Your task to perform on an android device: Go to Android settings Image 0: 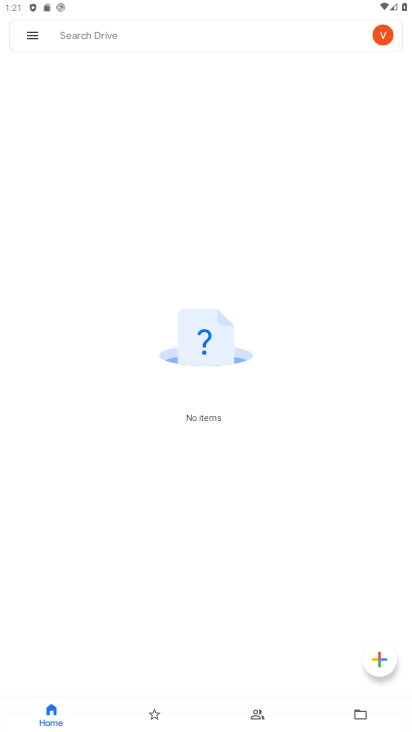
Step 0: press home button
Your task to perform on an android device: Go to Android settings Image 1: 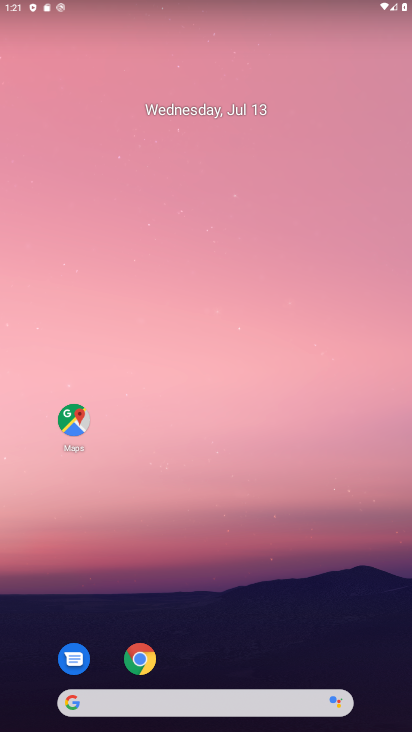
Step 1: drag from (372, 668) to (284, 166)
Your task to perform on an android device: Go to Android settings Image 2: 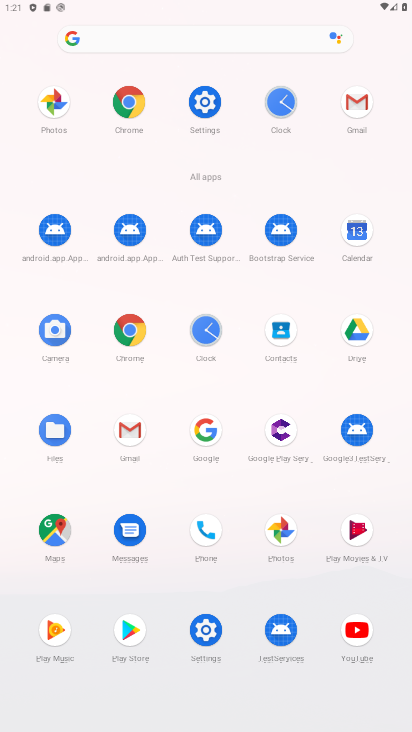
Step 2: click (205, 634)
Your task to perform on an android device: Go to Android settings Image 3: 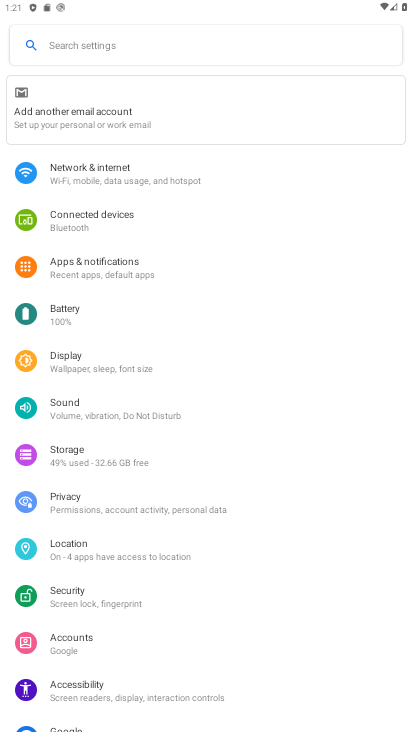
Step 3: drag from (311, 653) to (289, 264)
Your task to perform on an android device: Go to Android settings Image 4: 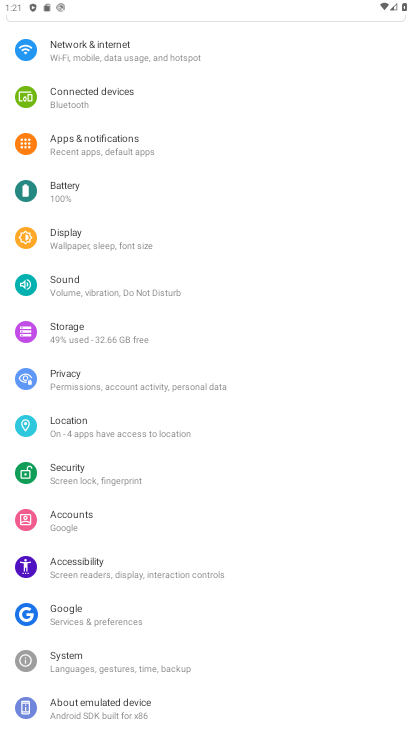
Step 4: click (76, 699)
Your task to perform on an android device: Go to Android settings Image 5: 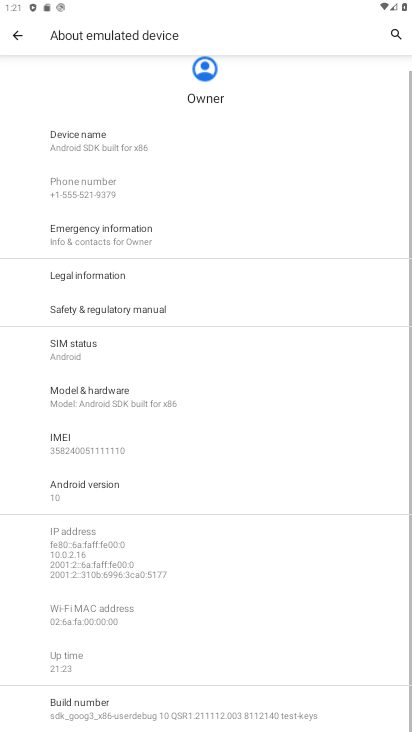
Step 5: task complete